Your task to perform on an android device: Open internet settings Image 0: 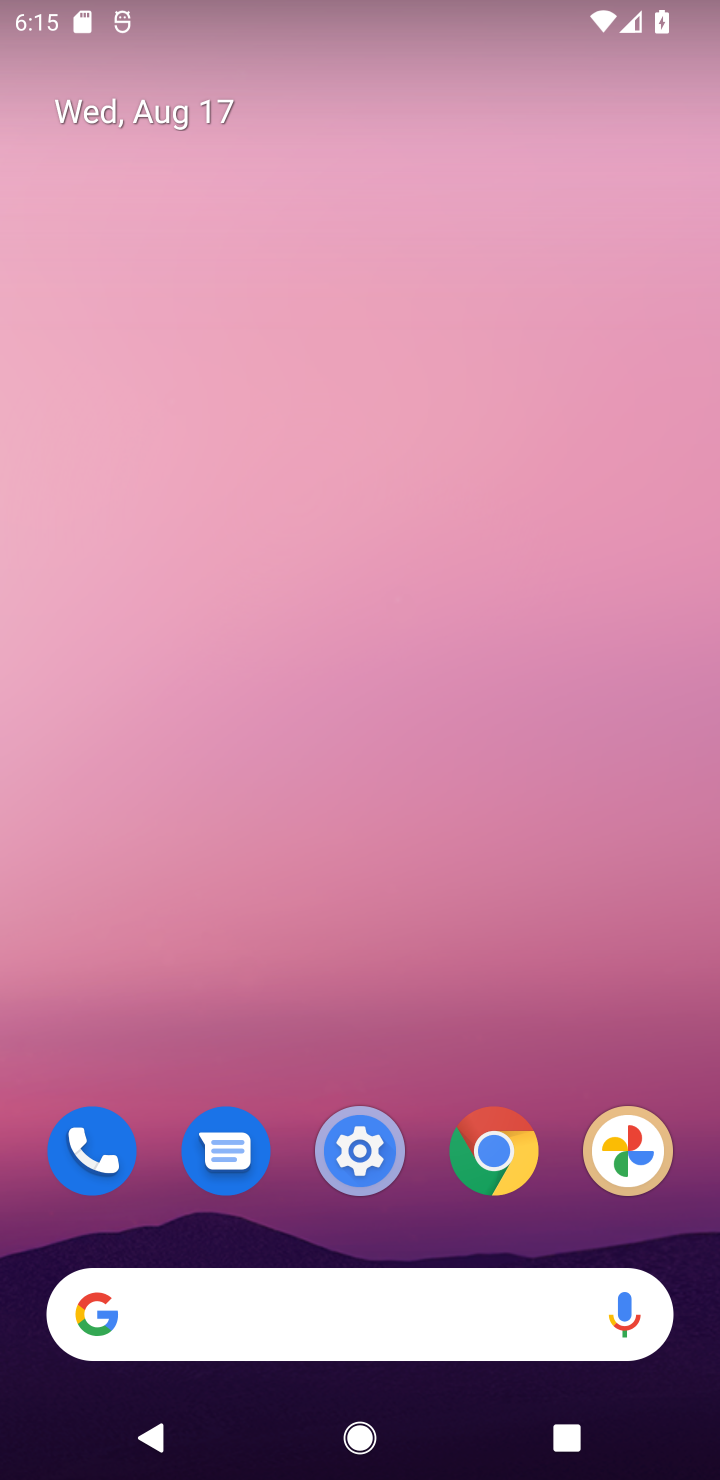
Step 0: click (375, 1151)
Your task to perform on an android device: Open internet settings Image 1: 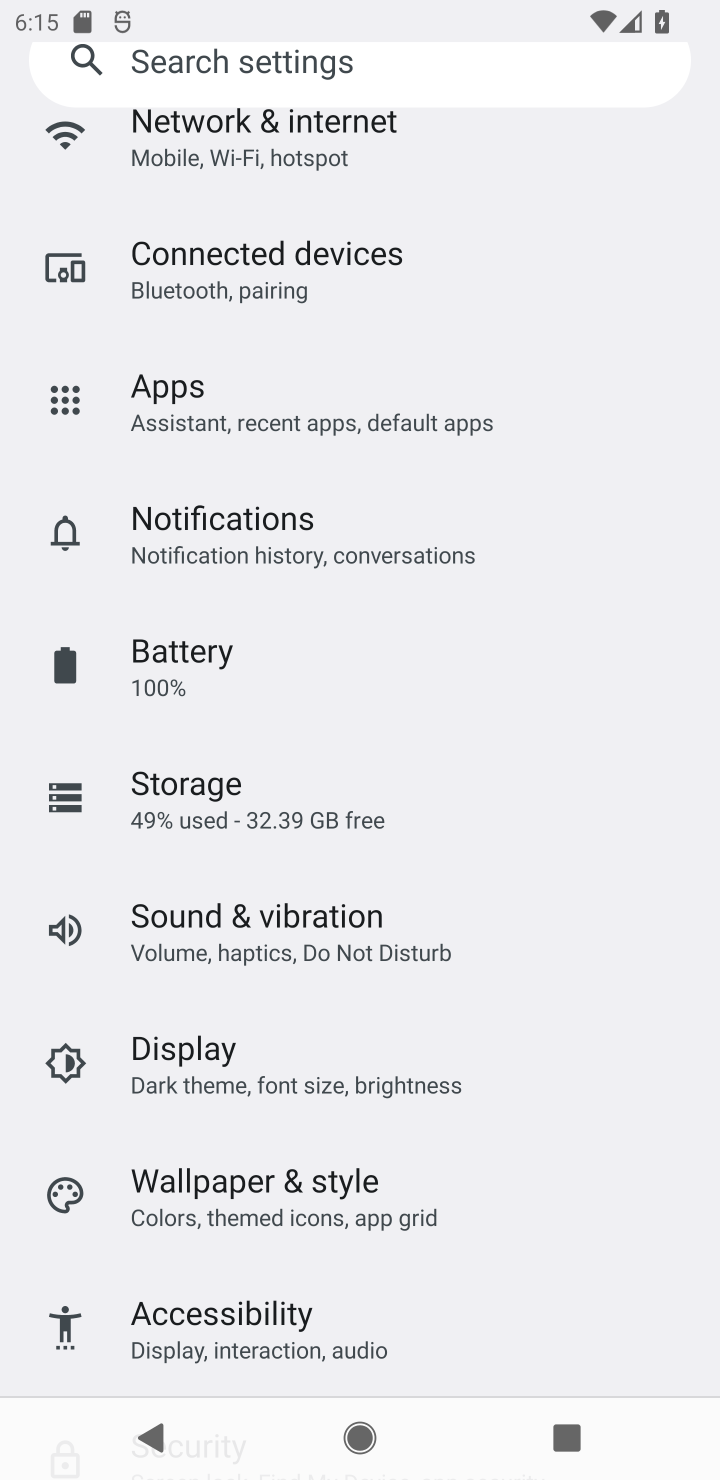
Step 1: click (463, 141)
Your task to perform on an android device: Open internet settings Image 2: 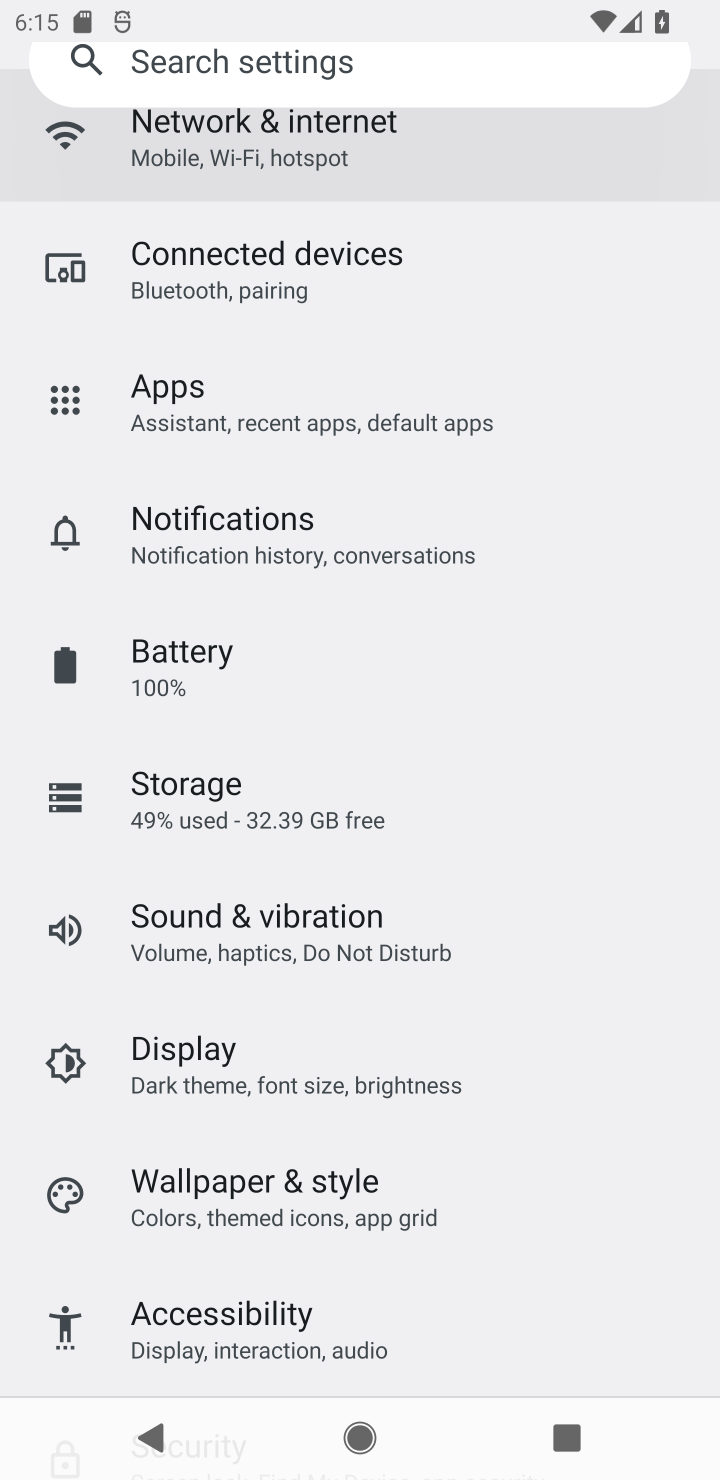
Step 2: task complete